Your task to perform on an android device: toggle notification dots Image 0: 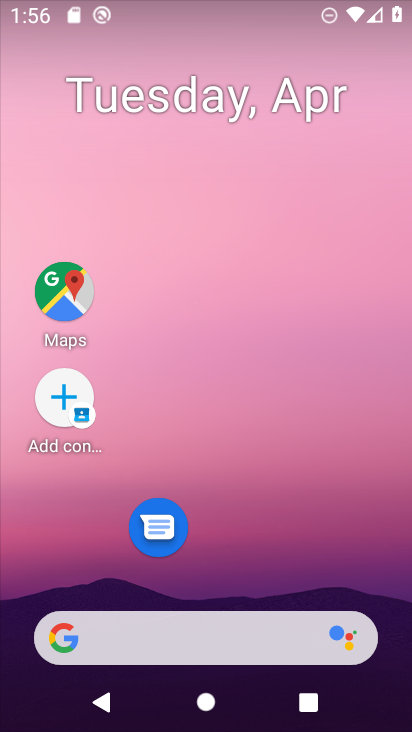
Step 0: drag from (262, 573) to (305, 134)
Your task to perform on an android device: toggle notification dots Image 1: 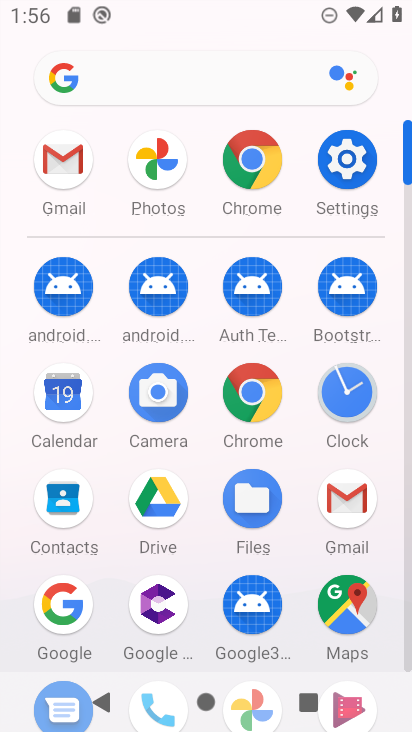
Step 1: click (348, 156)
Your task to perform on an android device: toggle notification dots Image 2: 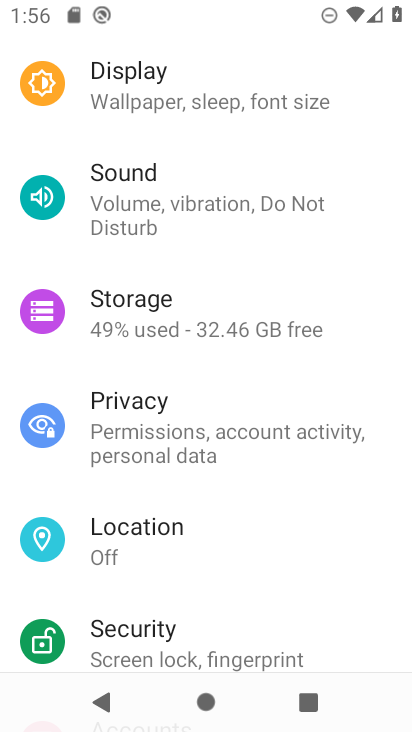
Step 2: drag from (258, 359) to (291, 451)
Your task to perform on an android device: toggle notification dots Image 3: 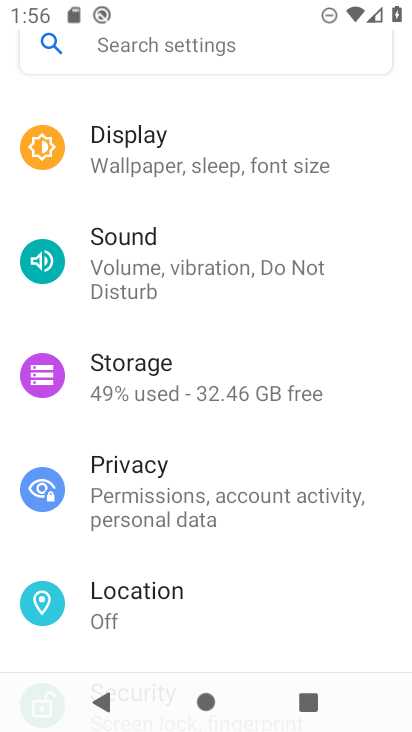
Step 3: drag from (252, 328) to (264, 437)
Your task to perform on an android device: toggle notification dots Image 4: 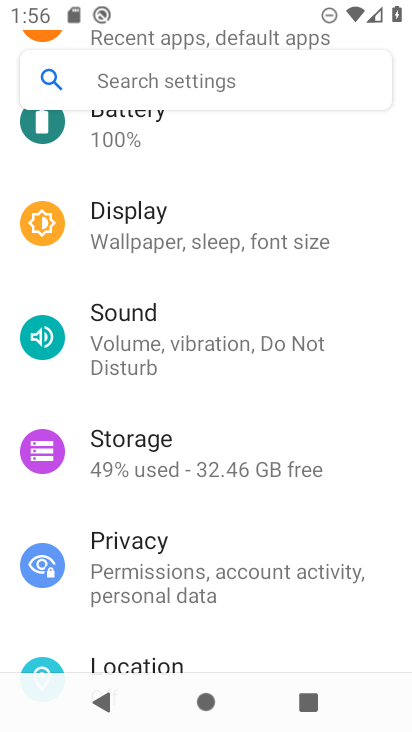
Step 4: drag from (239, 316) to (240, 454)
Your task to perform on an android device: toggle notification dots Image 5: 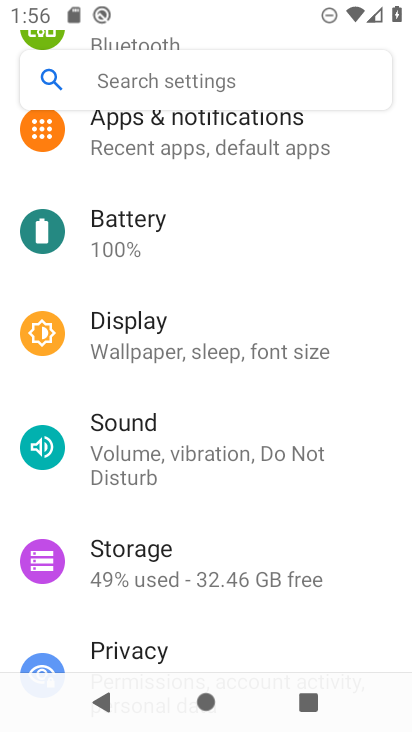
Step 5: drag from (224, 296) to (253, 418)
Your task to perform on an android device: toggle notification dots Image 6: 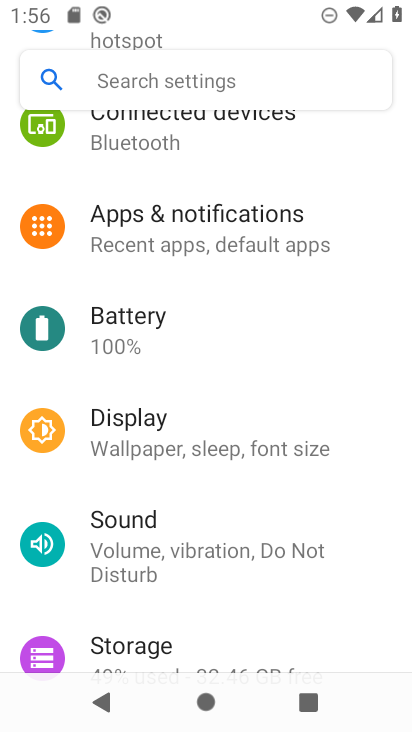
Step 6: click (210, 212)
Your task to perform on an android device: toggle notification dots Image 7: 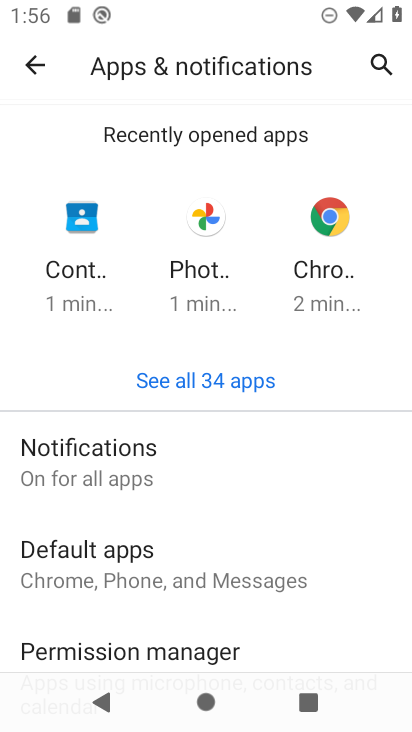
Step 7: click (118, 450)
Your task to perform on an android device: toggle notification dots Image 8: 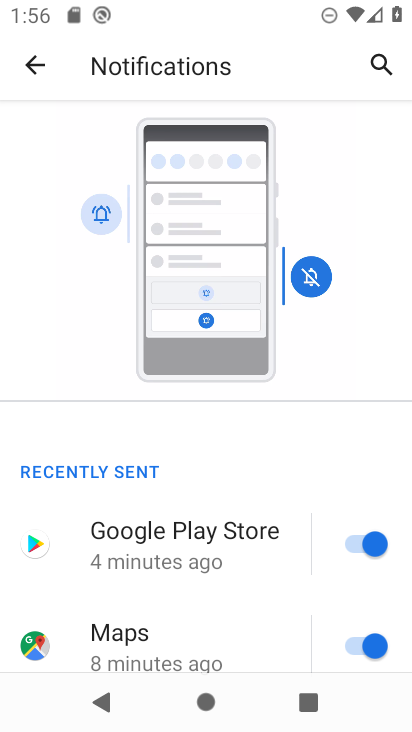
Step 8: drag from (223, 490) to (228, 256)
Your task to perform on an android device: toggle notification dots Image 9: 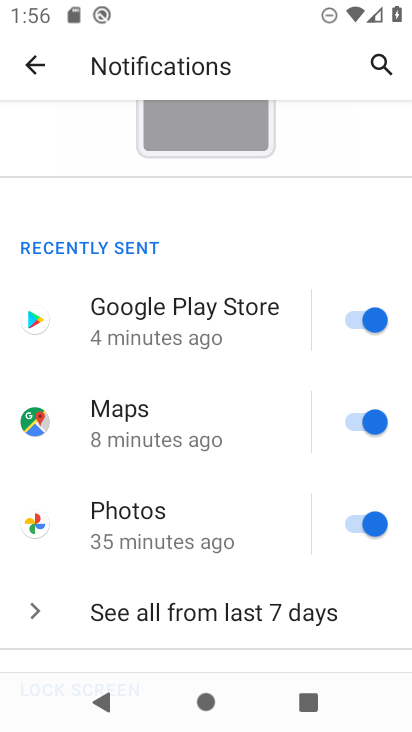
Step 9: drag from (195, 405) to (240, 240)
Your task to perform on an android device: toggle notification dots Image 10: 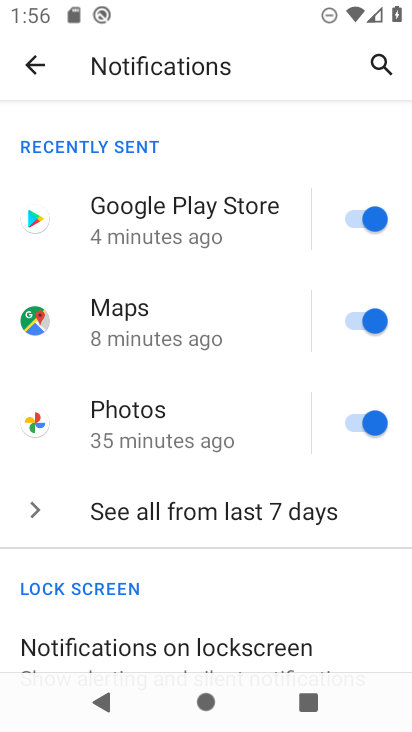
Step 10: drag from (198, 400) to (232, 270)
Your task to perform on an android device: toggle notification dots Image 11: 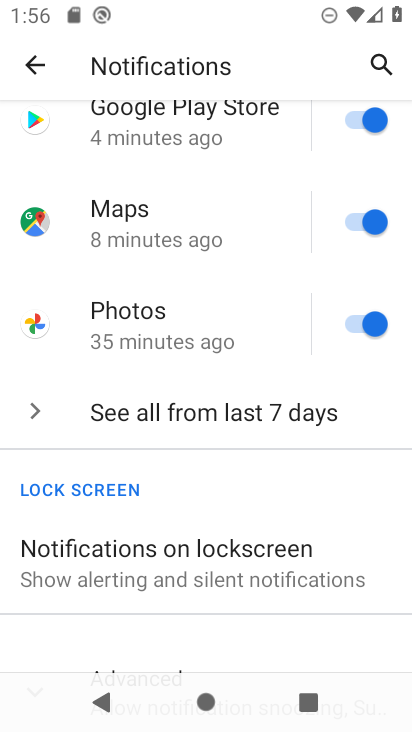
Step 11: drag from (182, 491) to (245, 273)
Your task to perform on an android device: toggle notification dots Image 12: 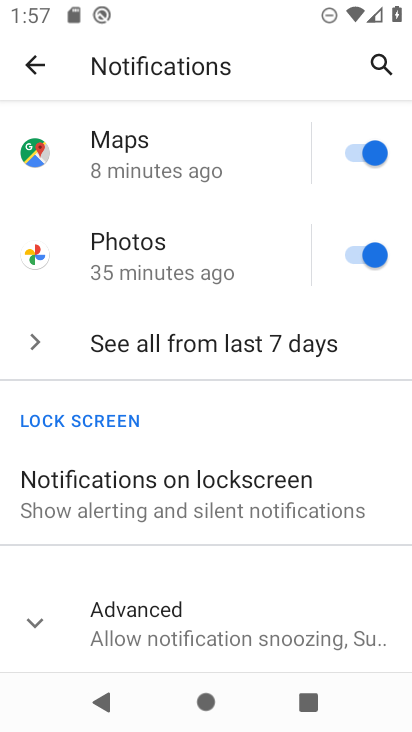
Step 12: click (161, 603)
Your task to perform on an android device: toggle notification dots Image 13: 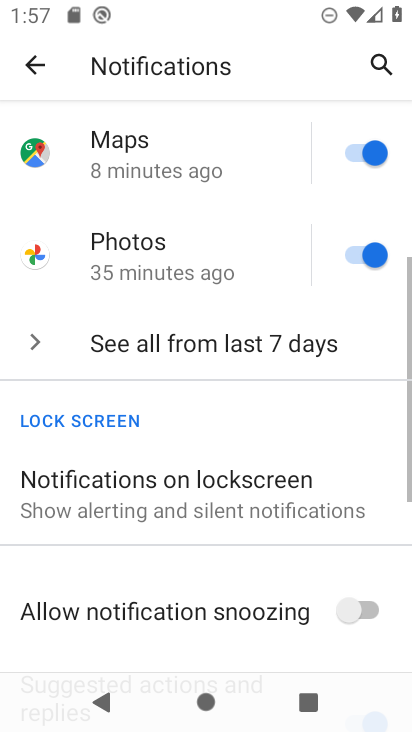
Step 13: drag from (190, 573) to (199, 395)
Your task to perform on an android device: toggle notification dots Image 14: 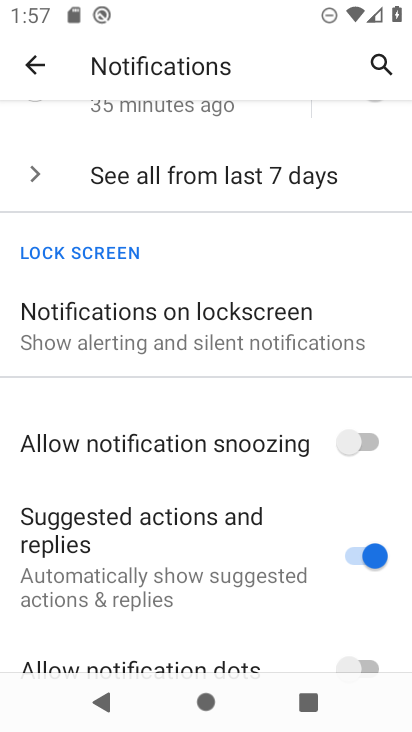
Step 14: drag from (176, 481) to (185, 347)
Your task to perform on an android device: toggle notification dots Image 15: 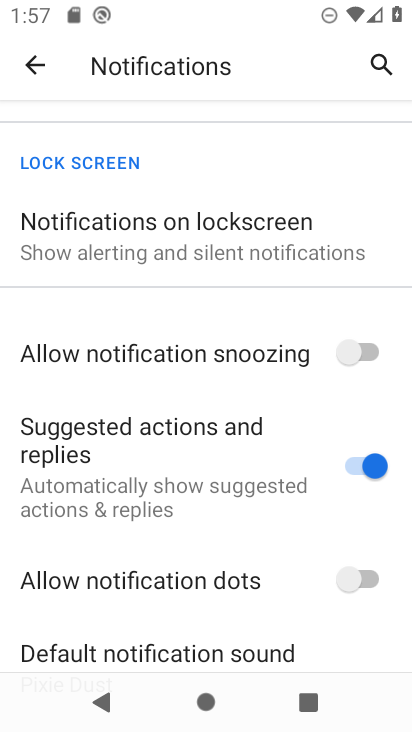
Step 15: drag from (175, 532) to (214, 392)
Your task to perform on an android device: toggle notification dots Image 16: 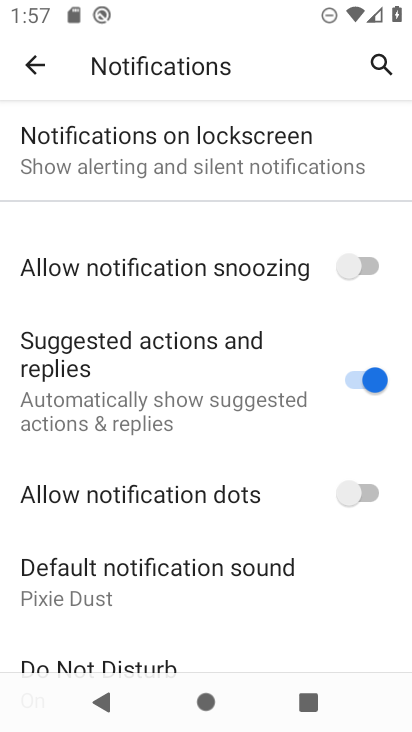
Step 16: click (357, 498)
Your task to perform on an android device: toggle notification dots Image 17: 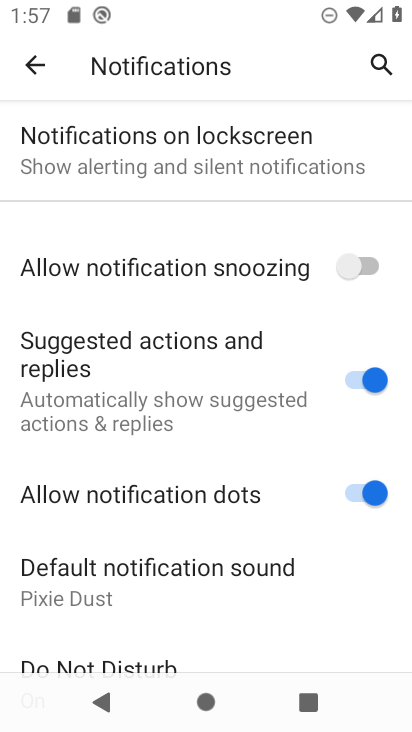
Step 17: task complete